Your task to perform on an android device: refresh tabs in the chrome app Image 0: 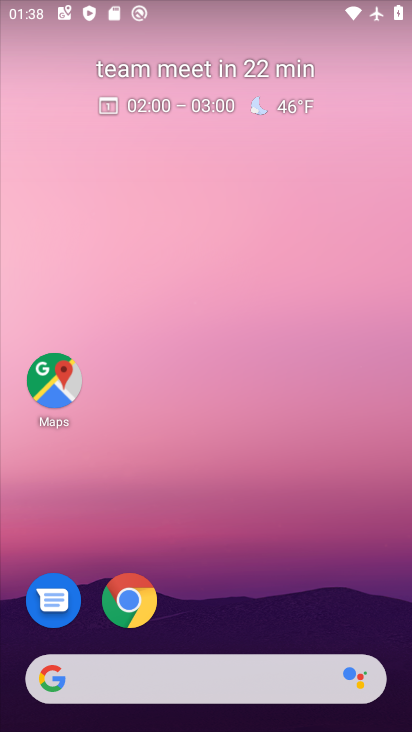
Step 0: drag from (236, 645) to (185, 37)
Your task to perform on an android device: refresh tabs in the chrome app Image 1: 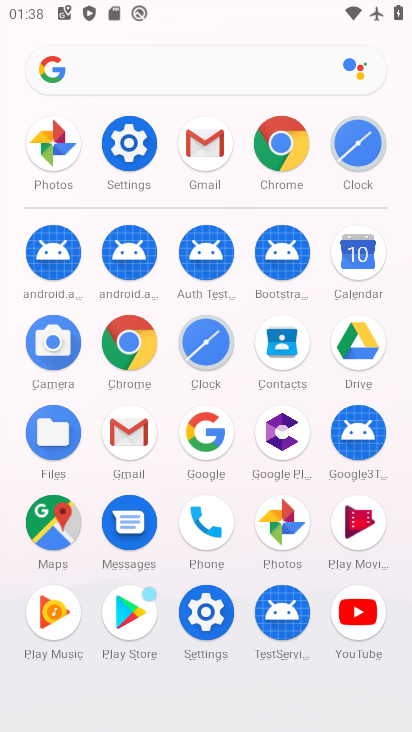
Step 1: click (129, 358)
Your task to perform on an android device: refresh tabs in the chrome app Image 2: 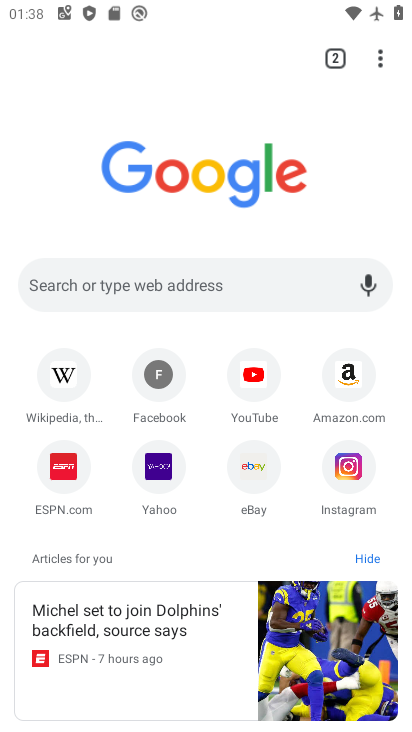
Step 2: click (377, 71)
Your task to perform on an android device: refresh tabs in the chrome app Image 3: 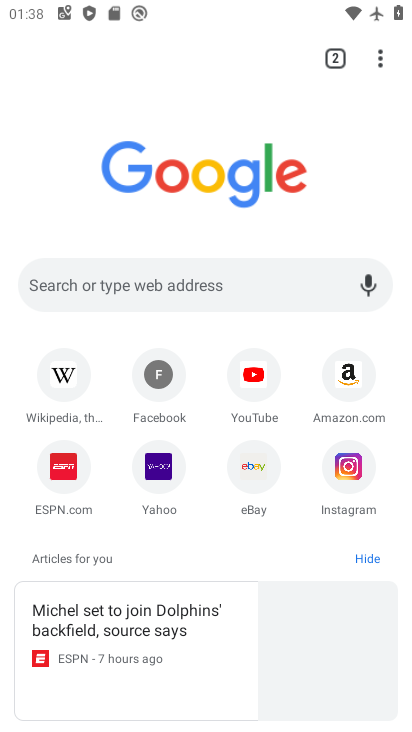
Step 3: click (377, 71)
Your task to perform on an android device: refresh tabs in the chrome app Image 4: 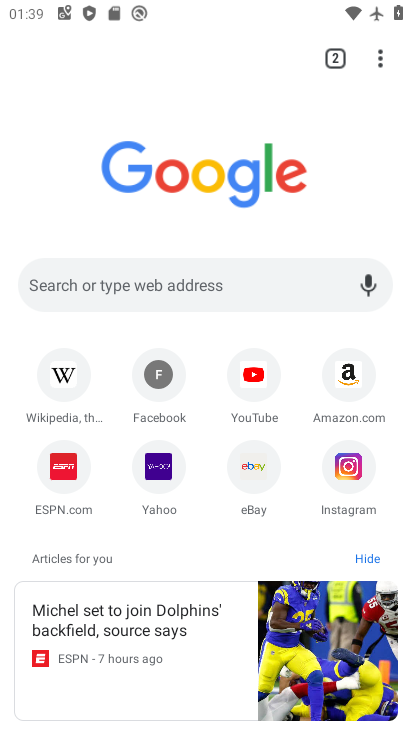
Step 4: task complete